Your task to perform on an android device: Show me popular games on the Play Store Image 0: 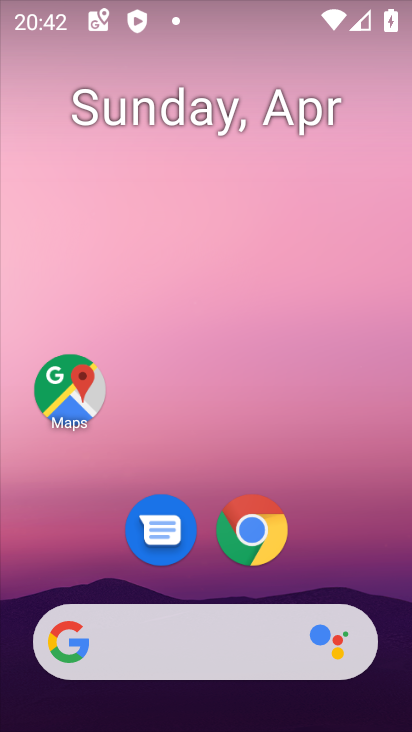
Step 0: drag from (204, 568) to (267, 75)
Your task to perform on an android device: Show me popular games on the Play Store Image 1: 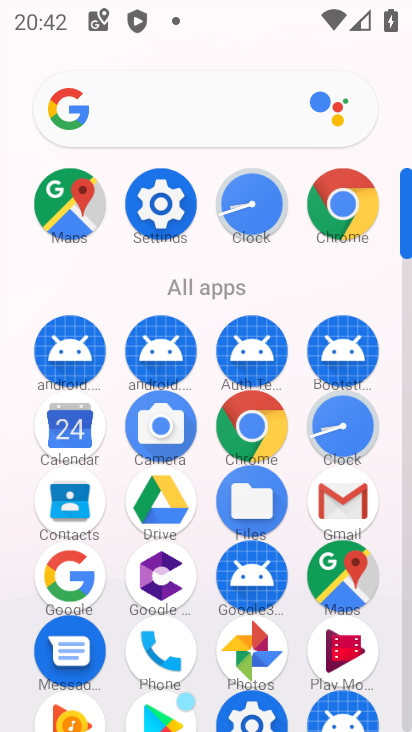
Step 1: click (154, 711)
Your task to perform on an android device: Show me popular games on the Play Store Image 2: 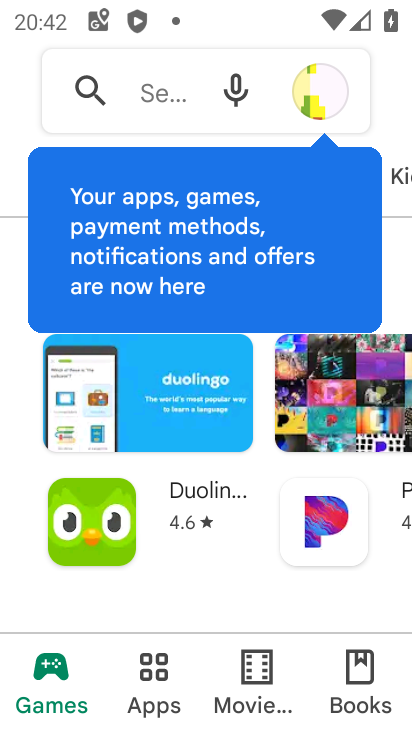
Step 2: click (381, 96)
Your task to perform on an android device: Show me popular games on the Play Store Image 3: 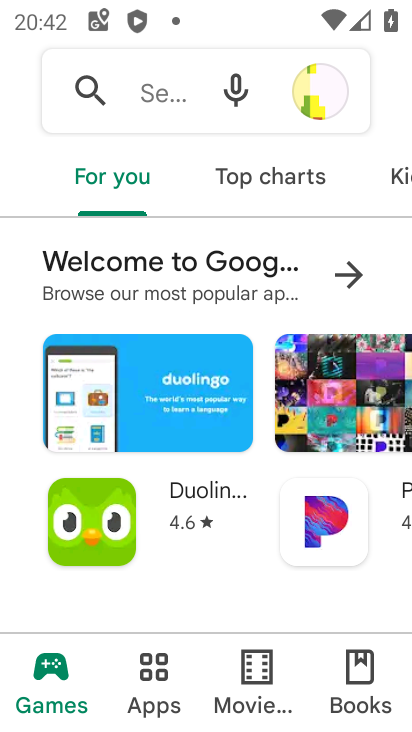
Step 3: click (383, 178)
Your task to perform on an android device: Show me popular games on the Play Store Image 4: 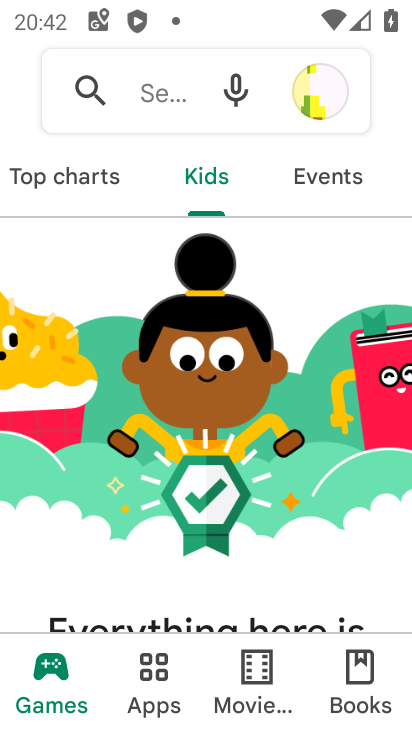
Step 4: drag from (319, 177) to (91, 179)
Your task to perform on an android device: Show me popular games on the Play Store Image 5: 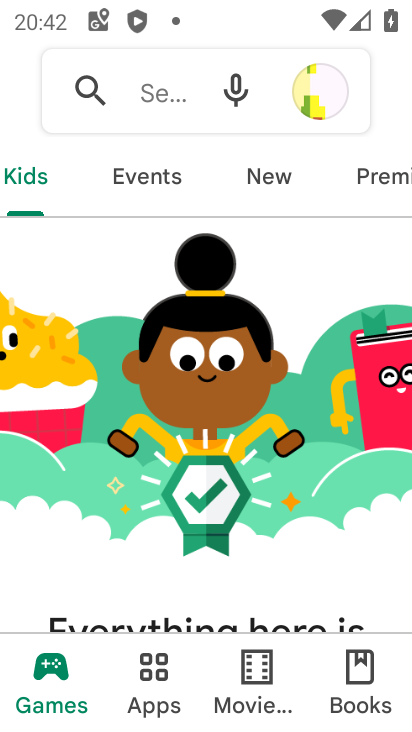
Step 5: drag from (109, 172) to (358, 181)
Your task to perform on an android device: Show me popular games on the Play Store Image 6: 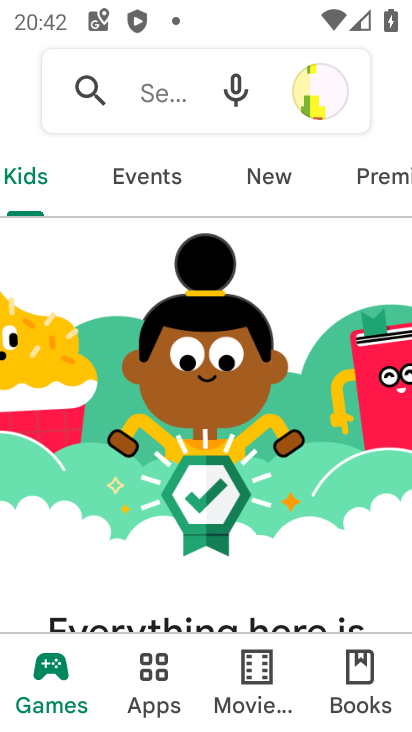
Step 6: drag from (49, 185) to (328, 178)
Your task to perform on an android device: Show me popular games on the Play Store Image 7: 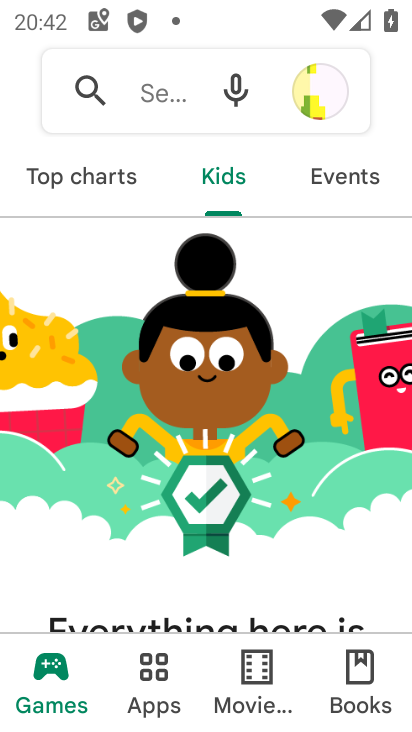
Step 7: click (105, 179)
Your task to perform on an android device: Show me popular games on the Play Store Image 8: 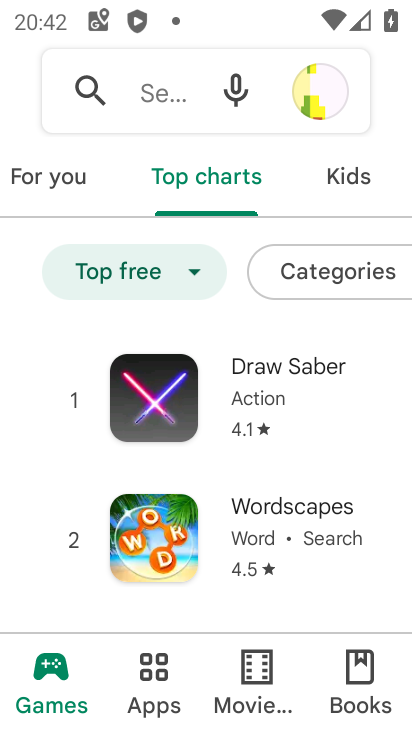
Step 8: task complete